Your task to perform on an android device: uninstall "Adobe Acrobat Reader: Edit PDF" Image 0: 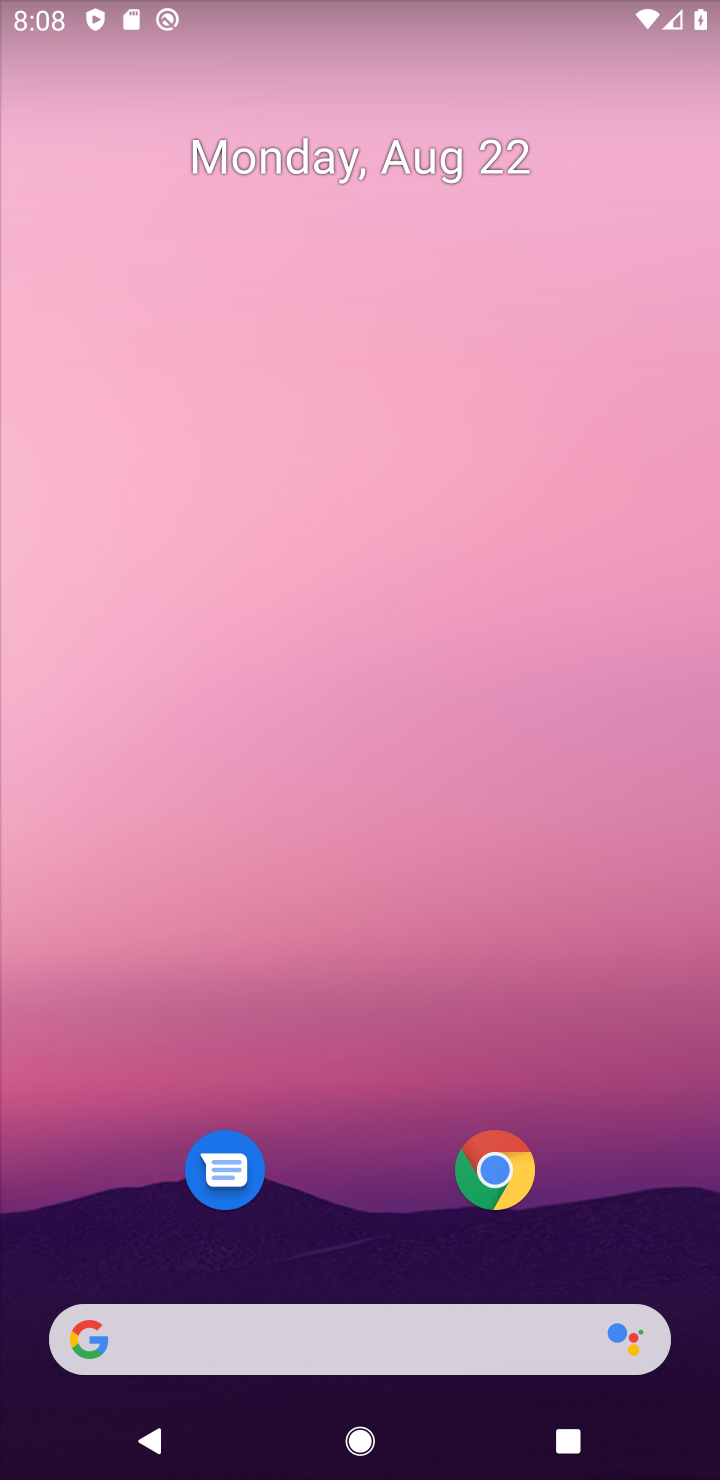
Step 0: drag from (329, 1254) to (435, 41)
Your task to perform on an android device: uninstall "Adobe Acrobat Reader: Edit PDF" Image 1: 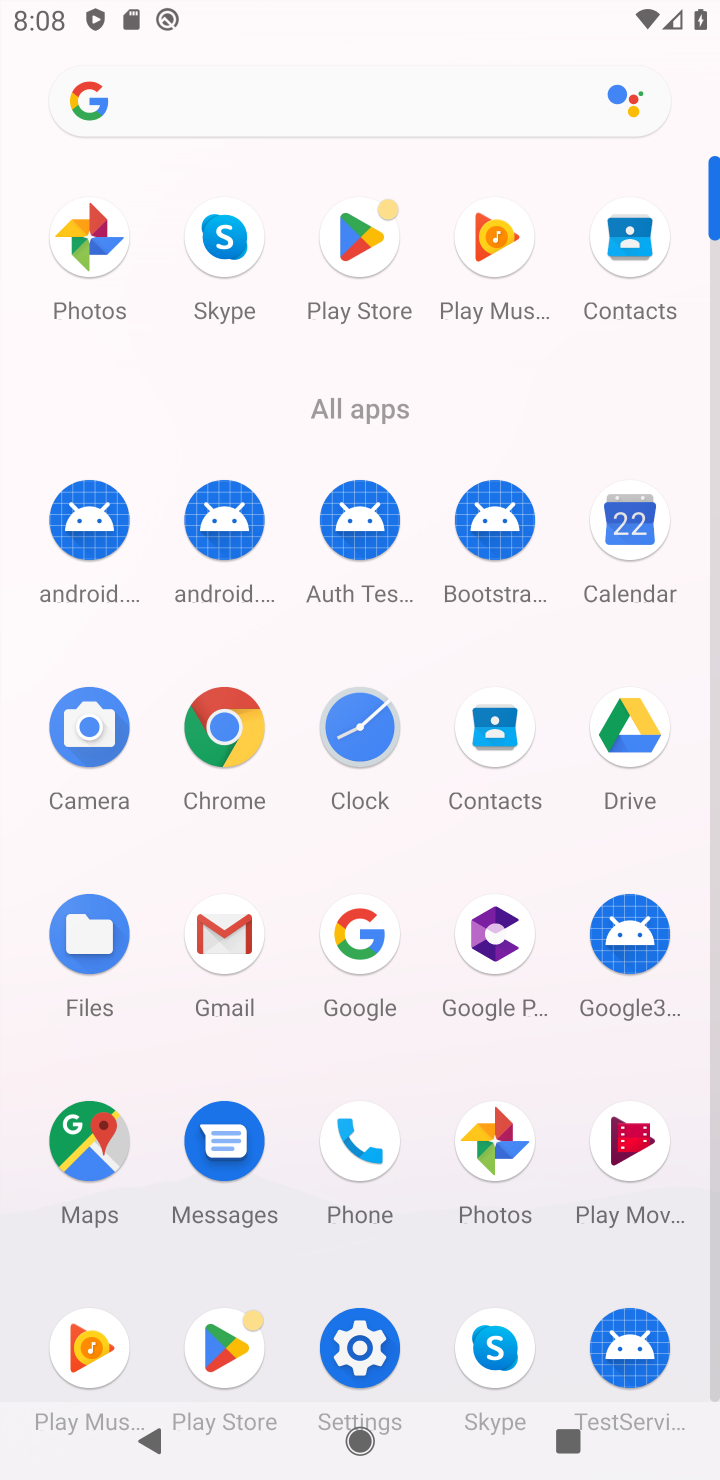
Step 1: click (372, 235)
Your task to perform on an android device: uninstall "Adobe Acrobat Reader: Edit PDF" Image 2: 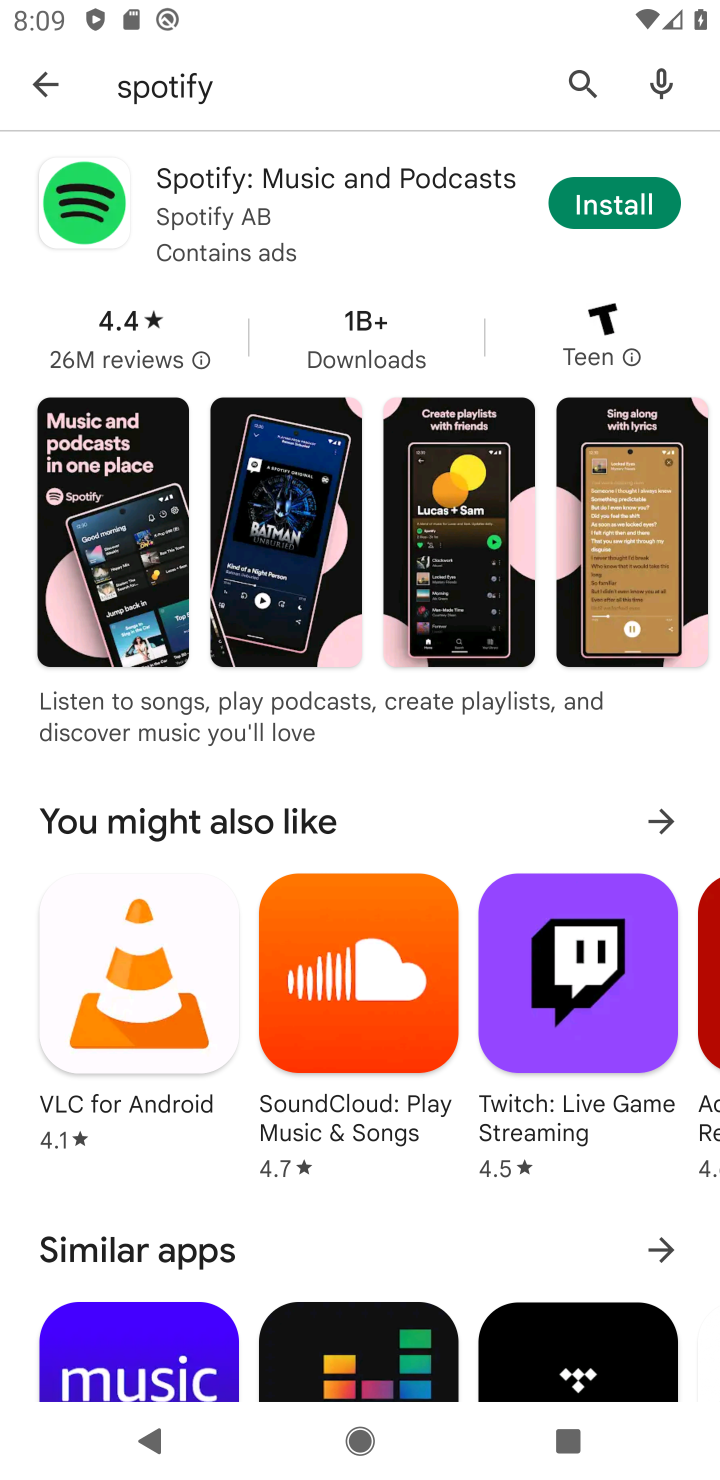
Step 2: click (600, 66)
Your task to perform on an android device: uninstall "Adobe Acrobat Reader: Edit PDF" Image 3: 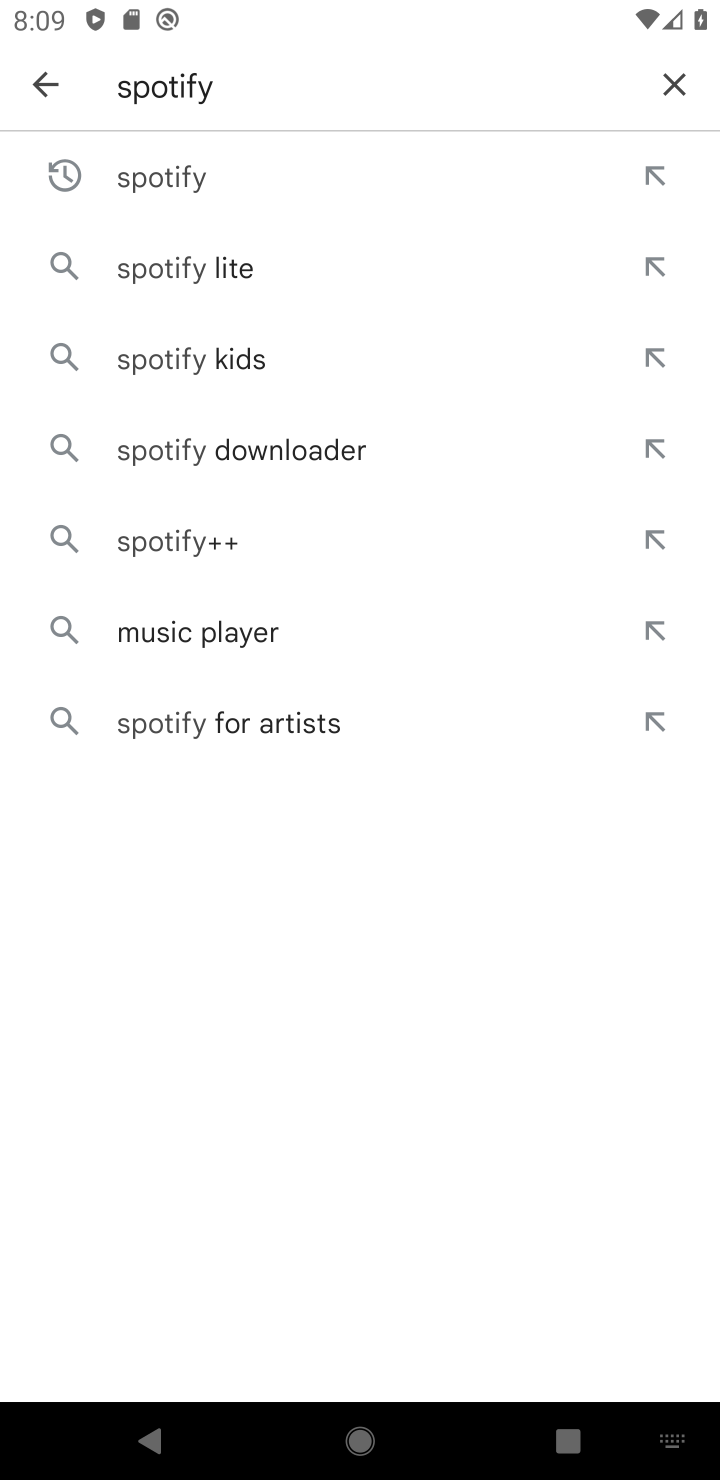
Step 3: click (670, 70)
Your task to perform on an android device: uninstall "Adobe Acrobat Reader: Edit PDF" Image 4: 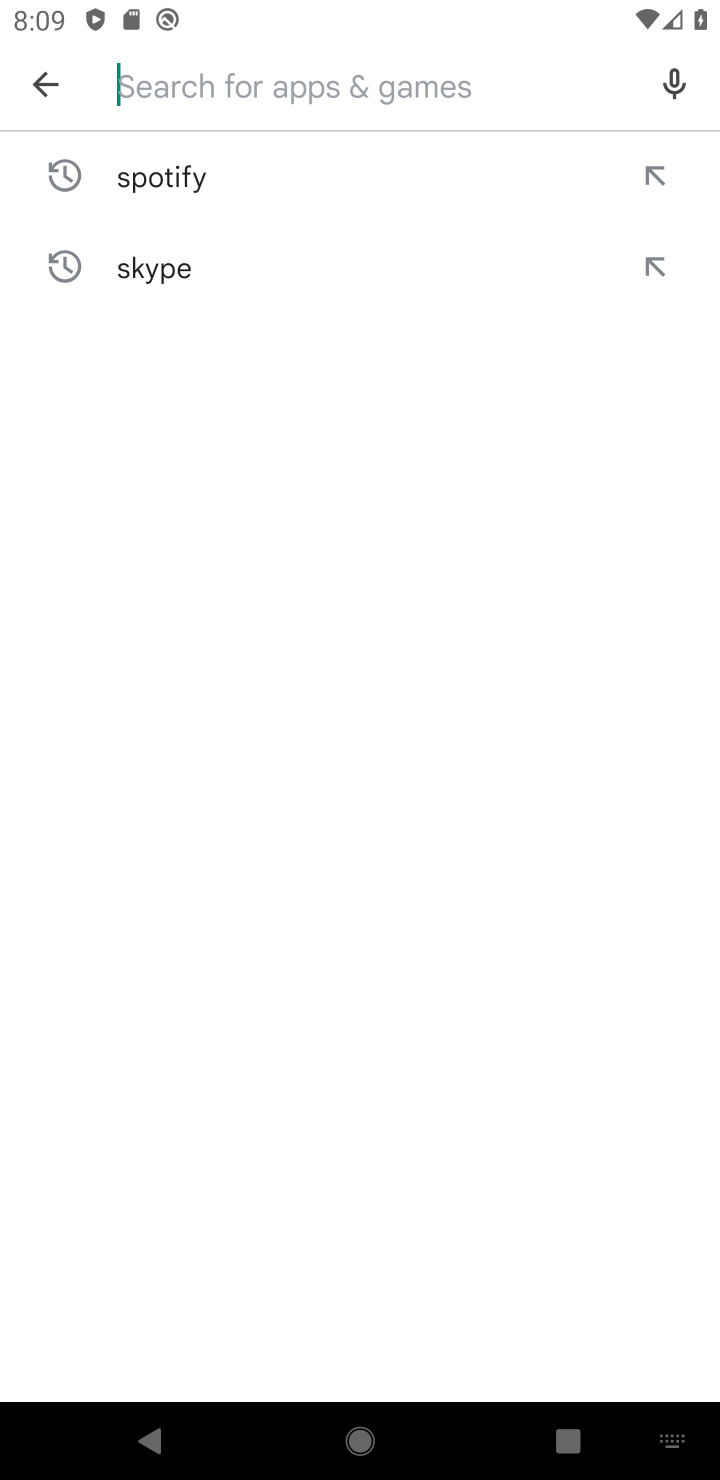
Step 4: click (219, 95)
Your task to perform on an android device: uninstall "Adobe Acrobat Reader: Edit PDF" Image 5: 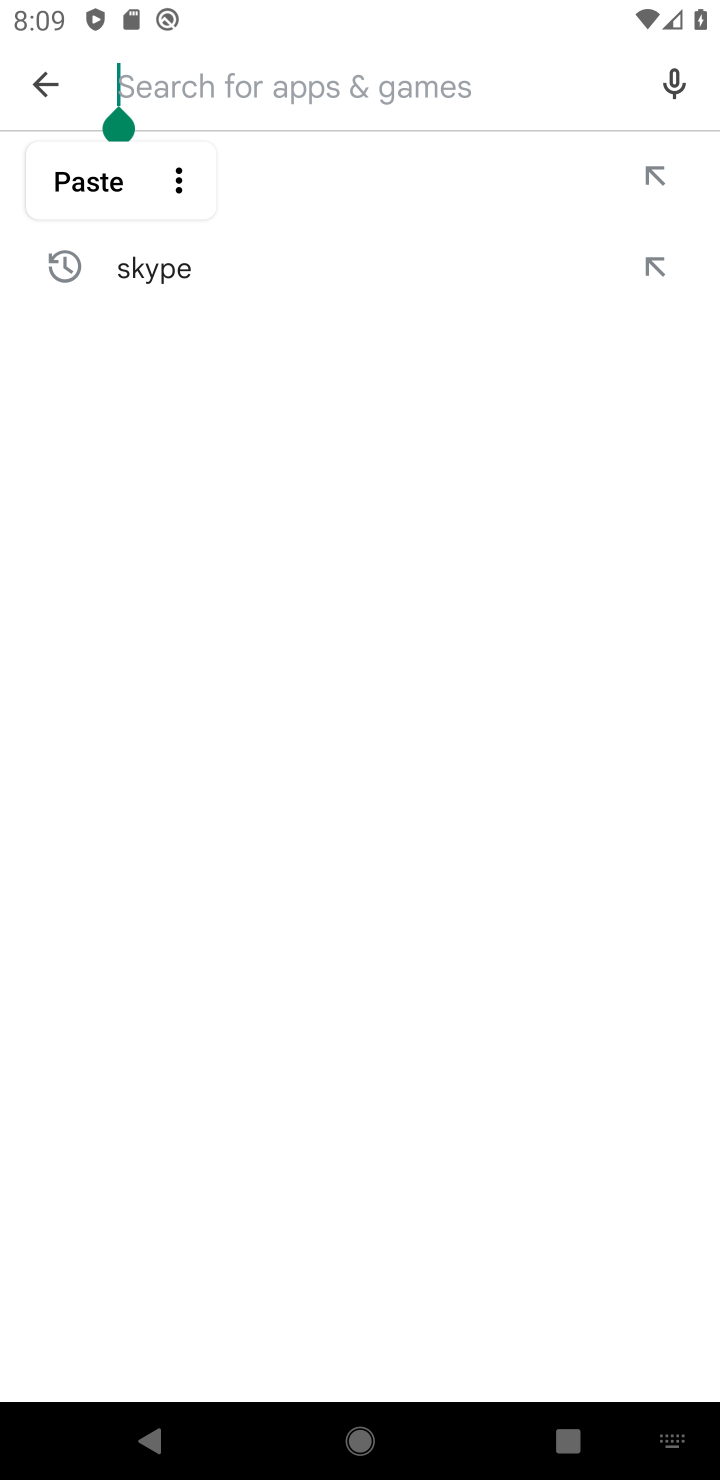
Step 5: type "Adobe Acrobat Reader"
Your task to perform on an android device: uninstall "Adobe Acrobat Reader: Edit PDF" Image 6: 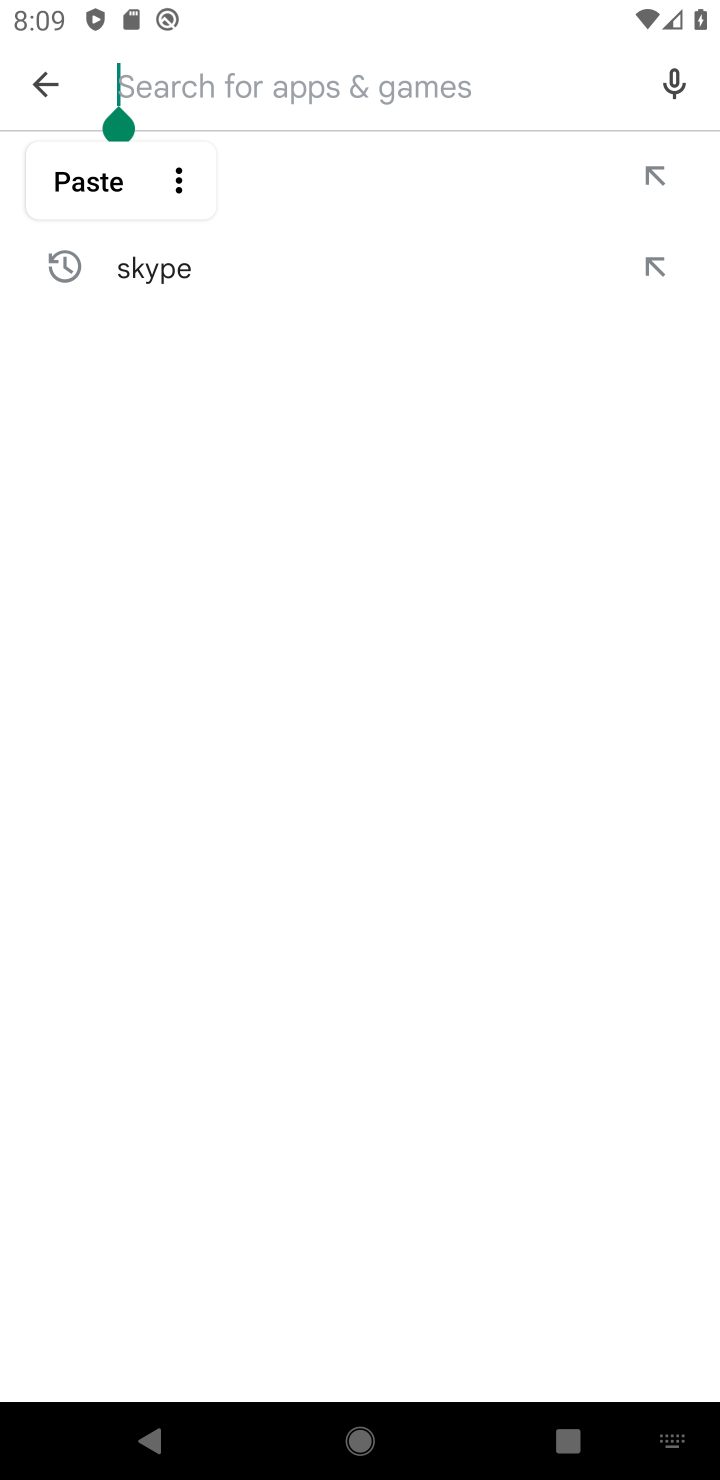
Step 6: click (443, 865)
Your task to perform on an android device: uninstall "Adobe Acrobat Reader: Edit PDF" Image 7: 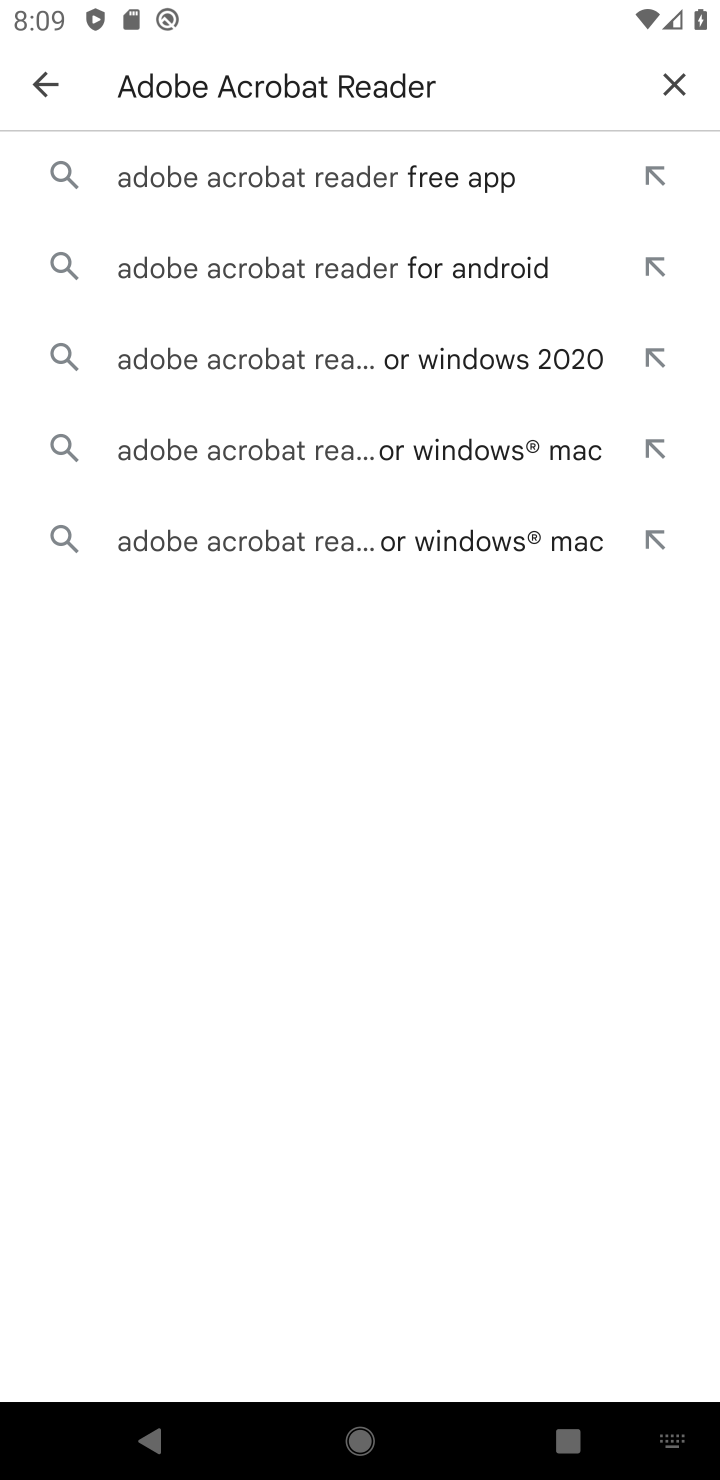
Step 7: click (344, 170)
Your task to perform on an android device: uninstall "Adobe Acrobat Reader: Edit PDF" Image 8: 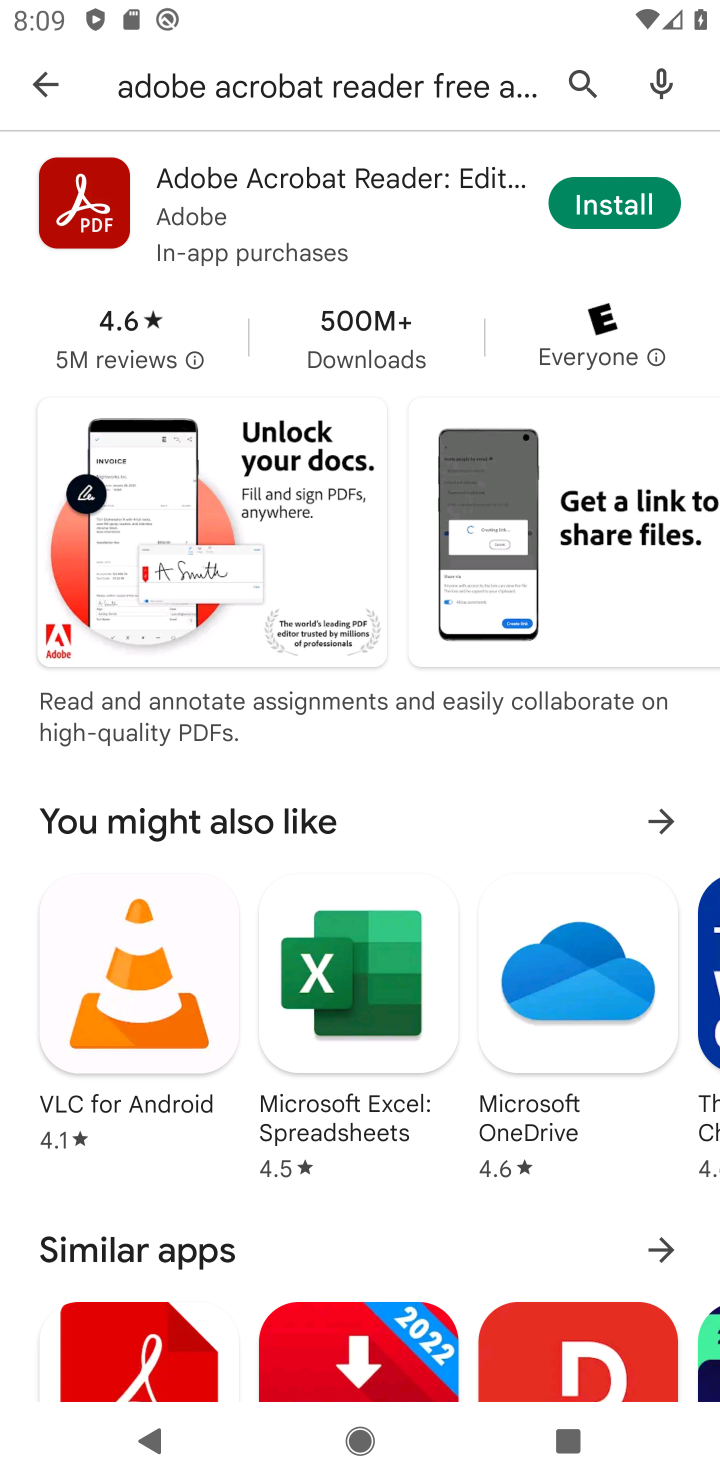
Step 8: task complete